Your task to perform on an android device: Search for seafood restaurants on Google Maps Image 0: 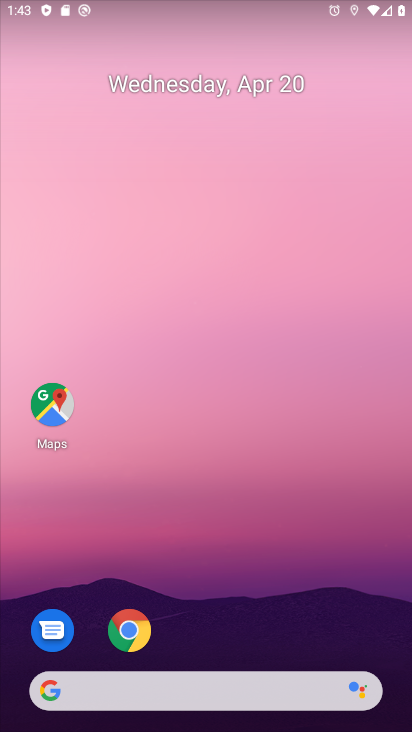
Step 0: click (48, 410)
Your task to perform on an android device: Search for seafood restaurants on Google Maps Image 1: 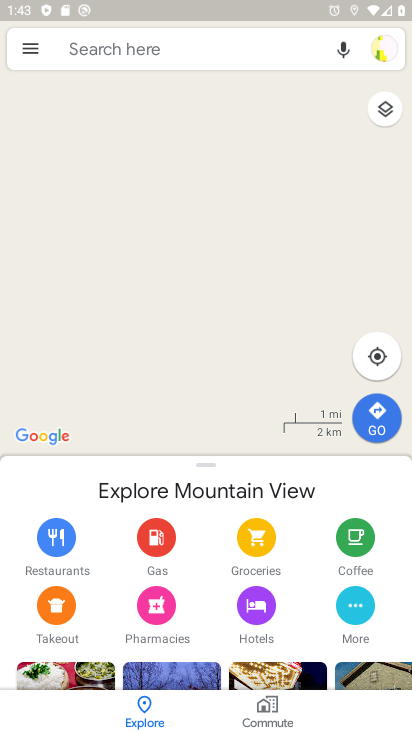
Step 1: click (147, 46)
Your task to perform on an android device: Search for seafood restaurants on Google Maps Image 2: 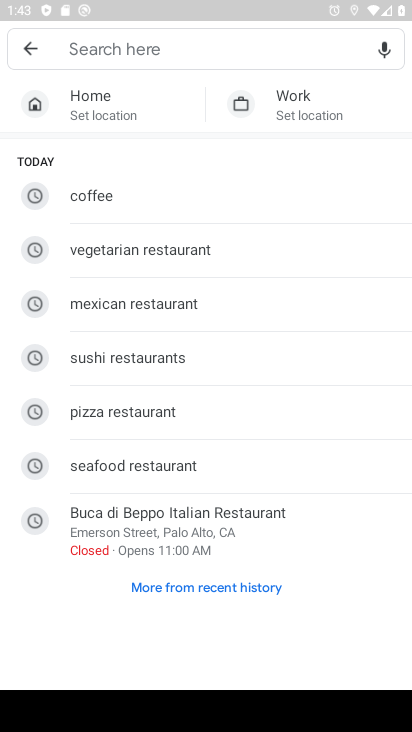
Step 2: click (101, 465)
Your task to perform on an android device: Search for seafood restaurants on Google Maps Image 3: 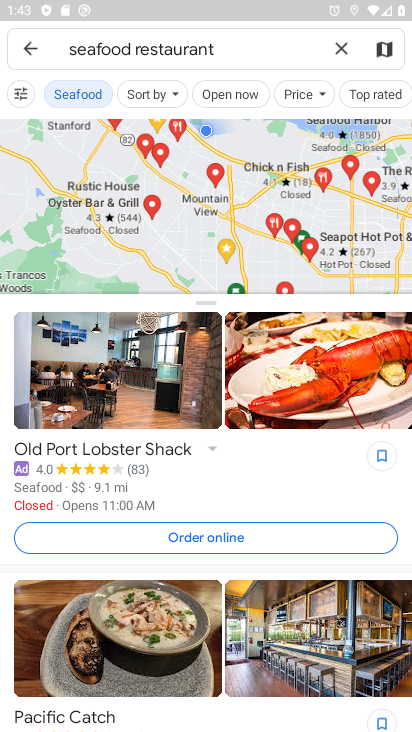
Step 3: task complete